Your task to perform on an android device: change alarm snooze length Image 0: 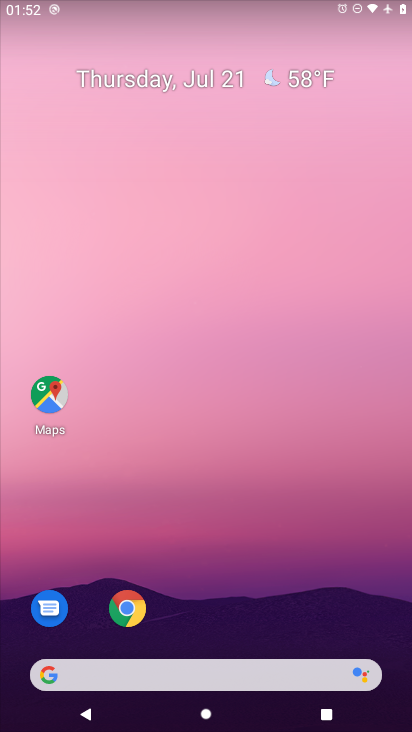
Step 0: press home button
Your task to perform on an android device: change alarm snooze length Image 1: 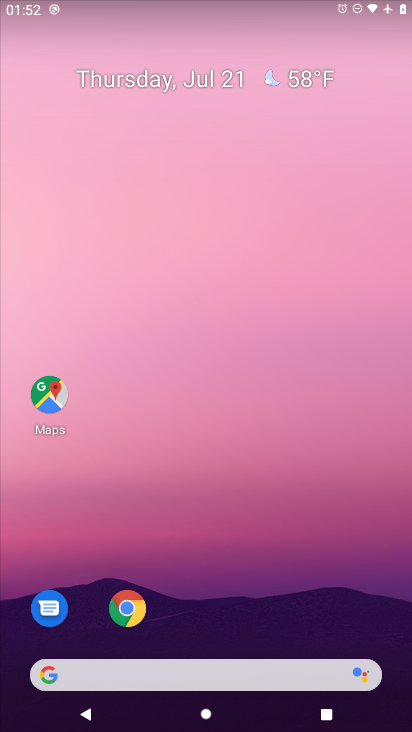
Step 1: drag from (210, 625) to (278, 19)
Your task to perform on an android device: change alarm snooze length Image 2: 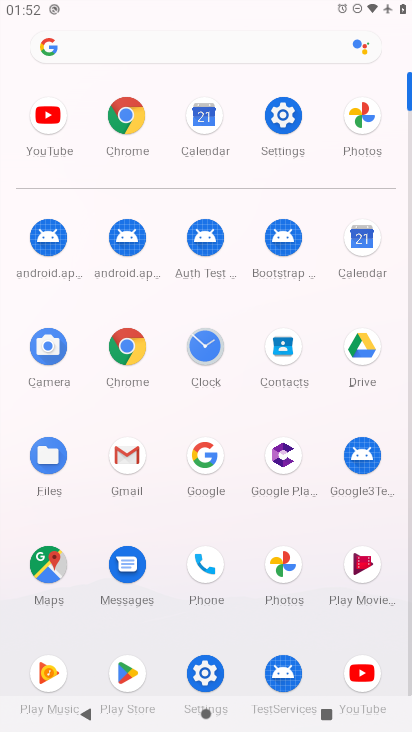
Step 2: click (201, 351)
Your task to perform on an android device: change alarm snooze length Image 3: 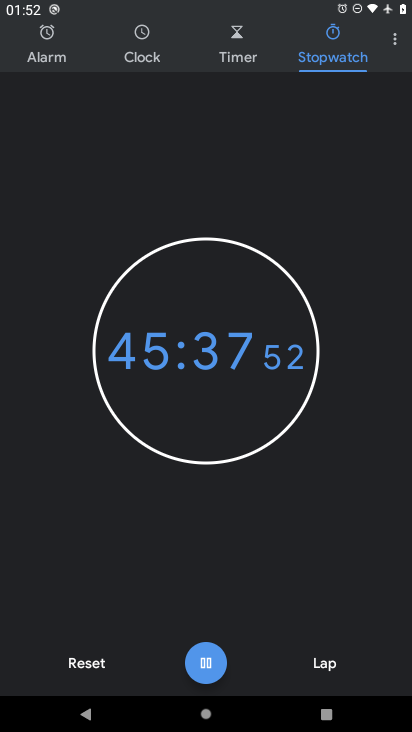
Step 3: click (398, 44)
Your task to perform on an android device: change alarm snooze length Image 4: 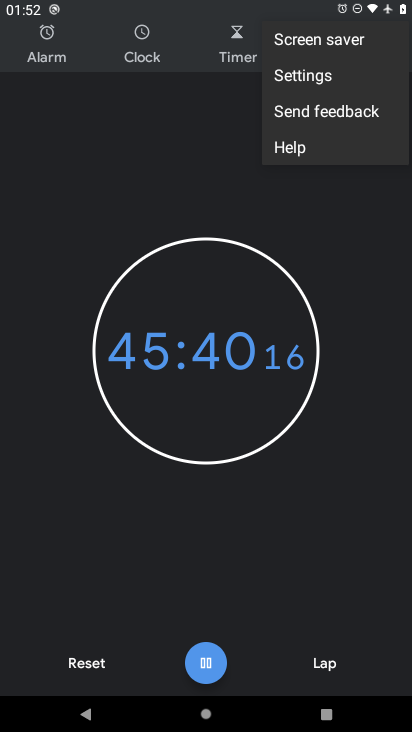
Step 4: click (307, 83)
Your task to perform on an android device: change alarm snooze length Image 5: 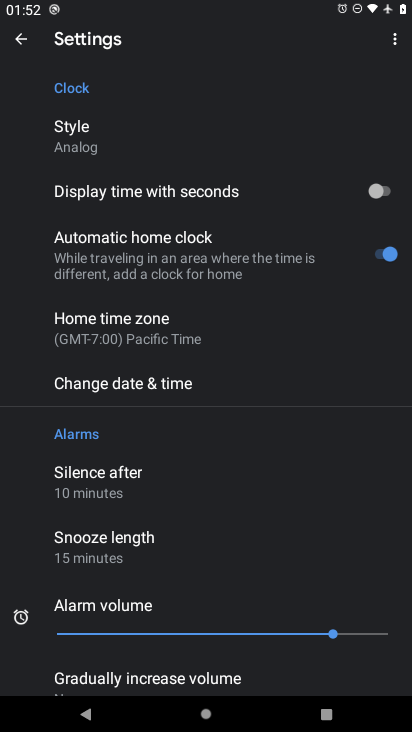
Step 5: click (103, 549)
Your task to perform on an android device: change alarm snooze length Image 6: 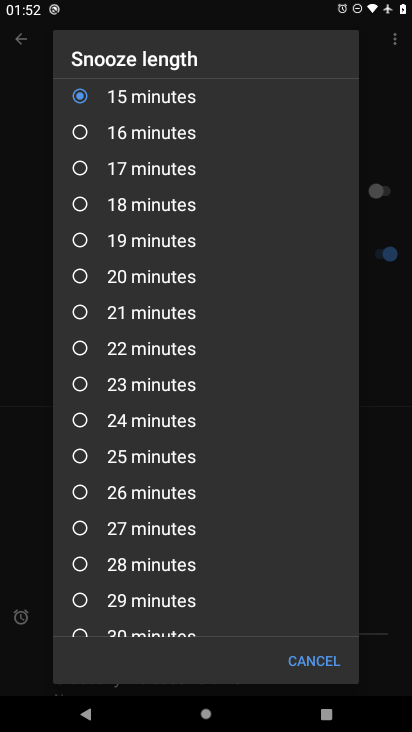
Step 6: click (77, 136)
Your task to perform on an android device: change alarm snooze length Image 7: 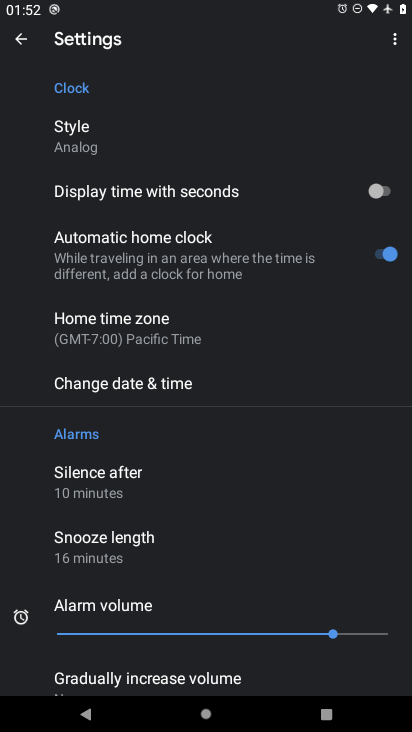
Step 7: task complete